Your task to perform on an android device: open chrome and create a bookmark for the current page Image 0: 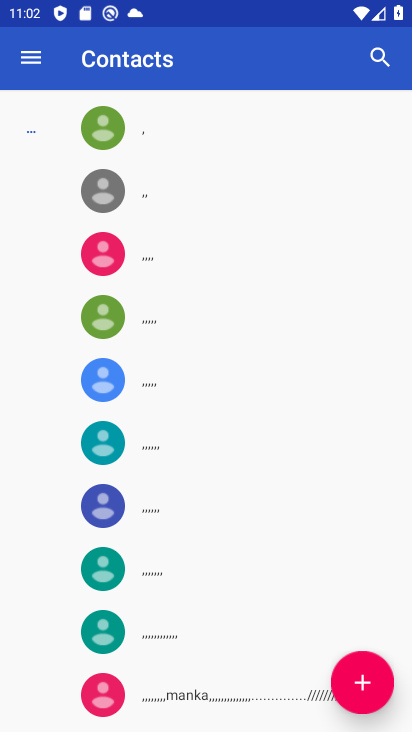
Step 0: click (173, 185)
Your task to perform on an android device: open chrome and create a bookmark for the current page Image 1: 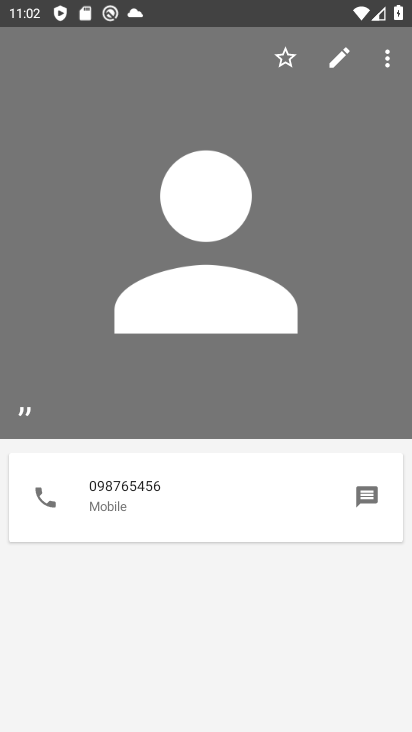
Step 1: press back button
Your task to perform on an android device: open chrome and create a bookmark for the current page Image 2: 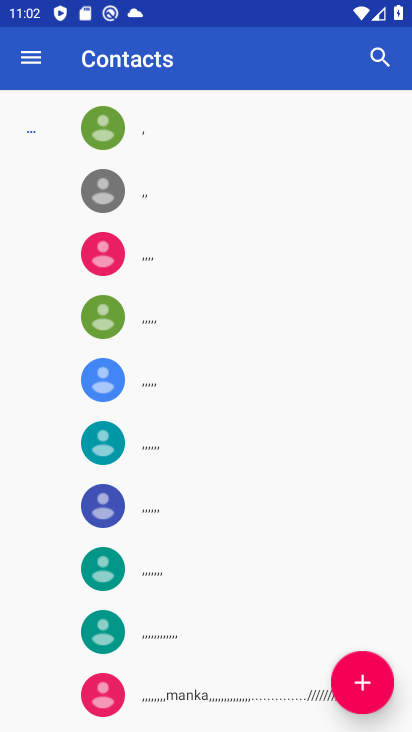
Step 2: press home button
Your task to perform on an android device: open chrome and create a bookmark for the current page Image 3: 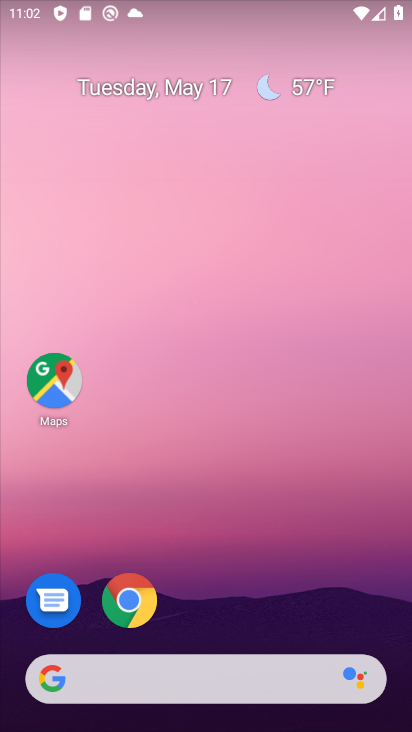
Step 3: press back button
Your task to perform on an android device: open chrome and create a bookmark for the current page Image 4: 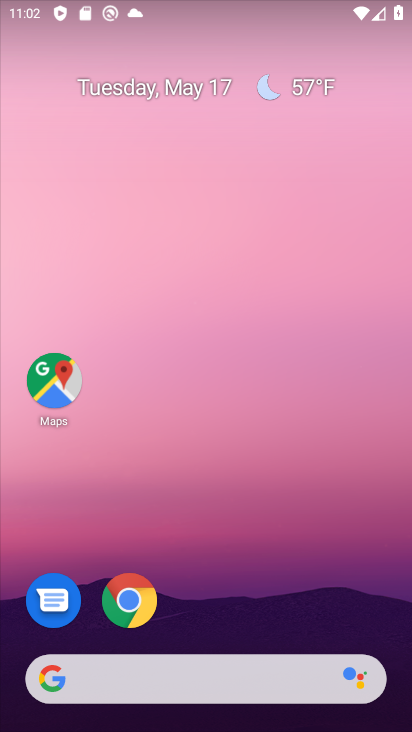
Step 4: drag from (268, 646) to (146, 46)
Your task to perform on an android device: open chrome and create a bookmark for the current page Image 5: 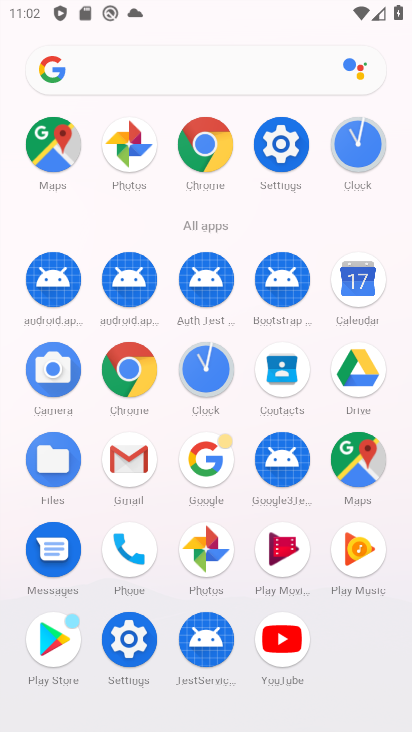
Step 5: click (207, 164)
Your task to perform on an android device: open chrome and create a bookmark for the current page Image 6: 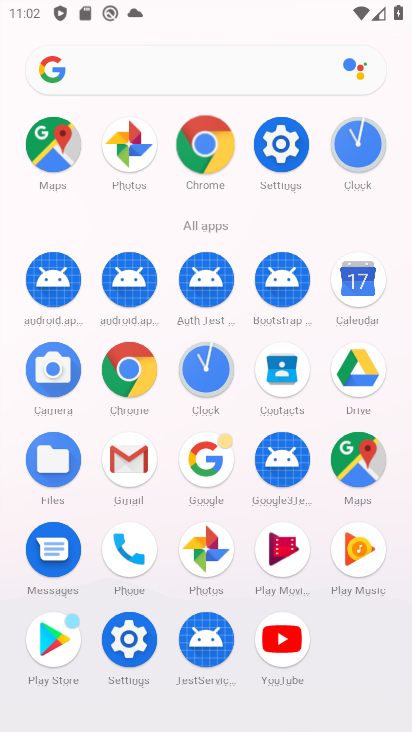
Step 6: click (207, 164)
Your task to perform on an android device: open chrome and create a bookmark for the current page Image 7: 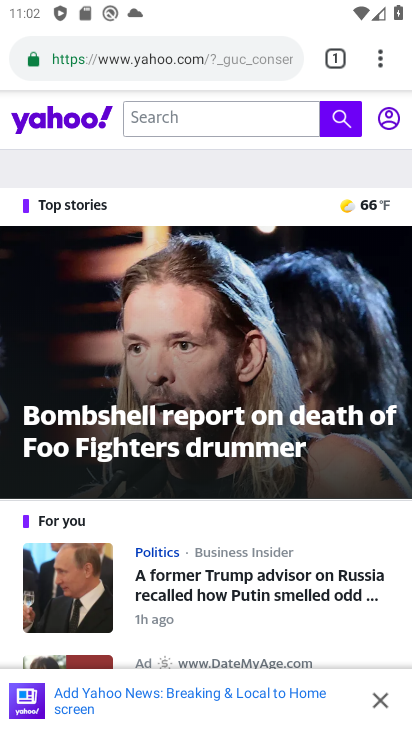
Step 7: click (378, 65)
Your task to perform on an android device: open chrome and create a bookmark for the current page Image 8: 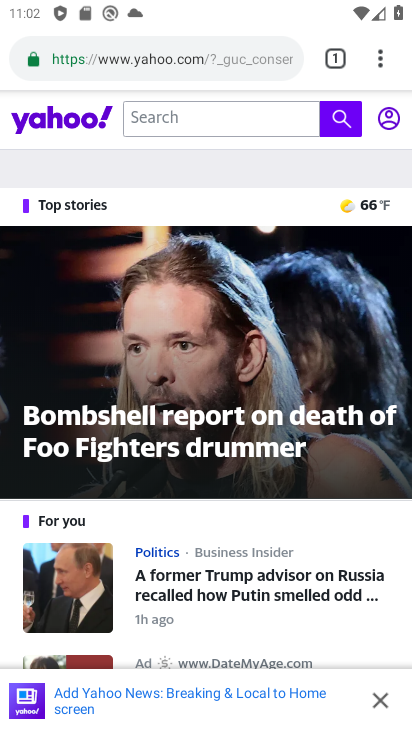
Step 8: drag from (376, 53) to (170, 118)
Your task to perform on an android device: open chrome and create a bookmark for the current page Image 9: 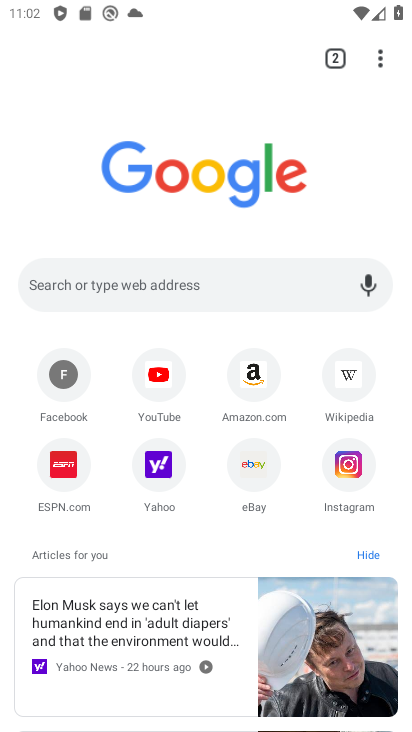
Step 9: click (63, 274)
Your task to perform on an android device: open chrome and create a bookmark for the current page Image 10: 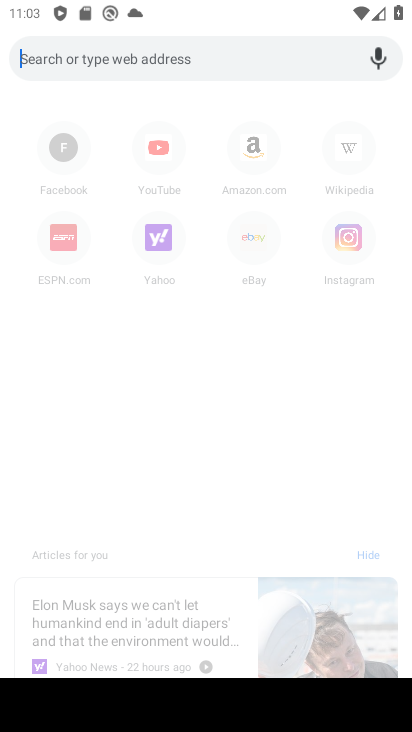
Step 10: type "www.snapdeal.com"
Your task to perform on an android device: open chrome and create a bookmark for the current page Image 11: 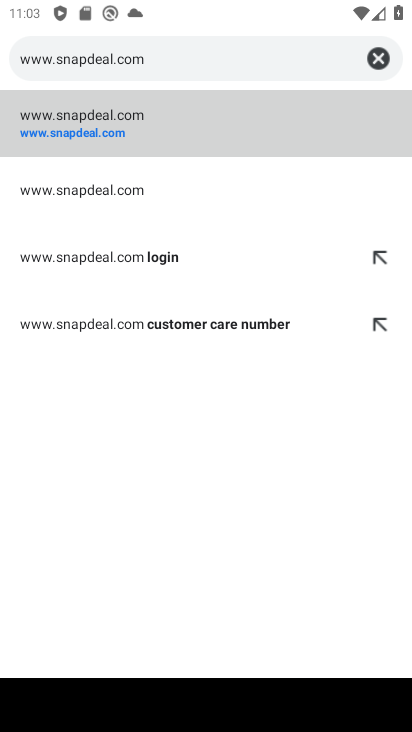
Step 11: click (98, 128)
Your task to perform on an android device: open chrome and create a bookmark for the current page Image 12: 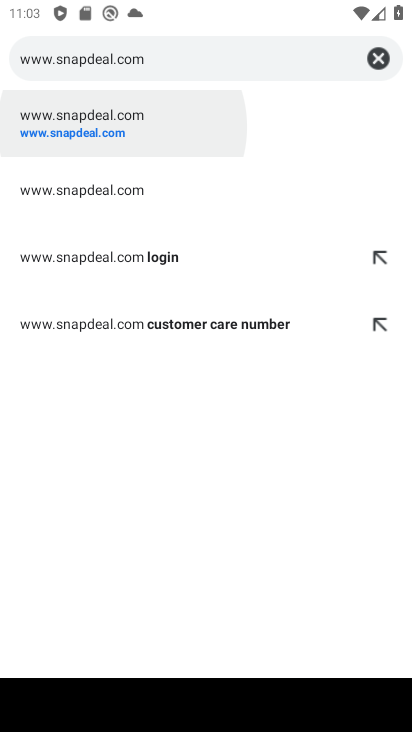
Step 12: click (97, 128)
Your task to perform on an android device: open chrome and create a bookmark for the current page Image 13: 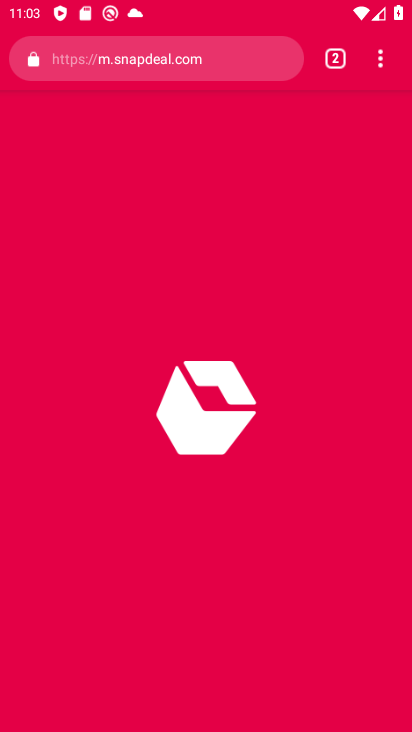
Step 13: drag from (379, 62) to (160, 220)
Your task to perform on an android device: open chrome and create a bookmark for the current page Image 14: 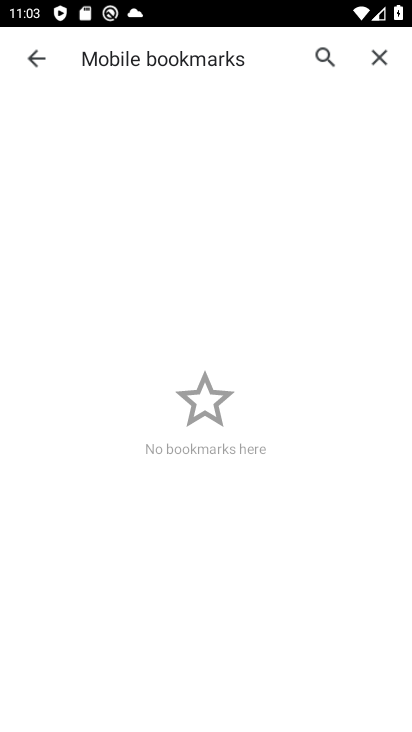
Step 14: click (158, 226)
Your task to perform on an android device: open chrome and create a bookmark for the current page Image 15: 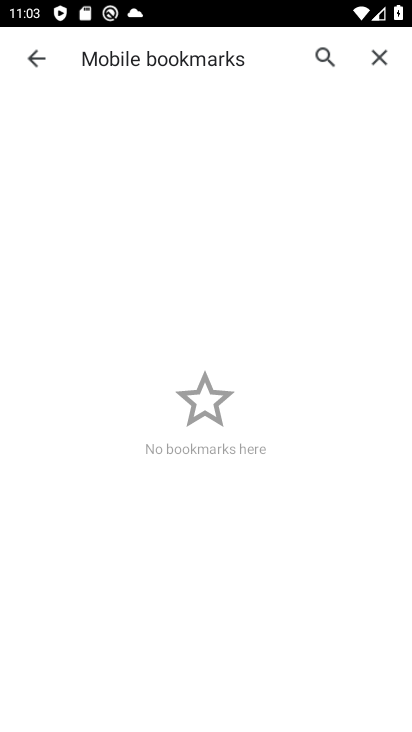
Step 15: click (30, 57)
Your task to perform on an android device: open chrome and create a bookmark for the current page Image 16: 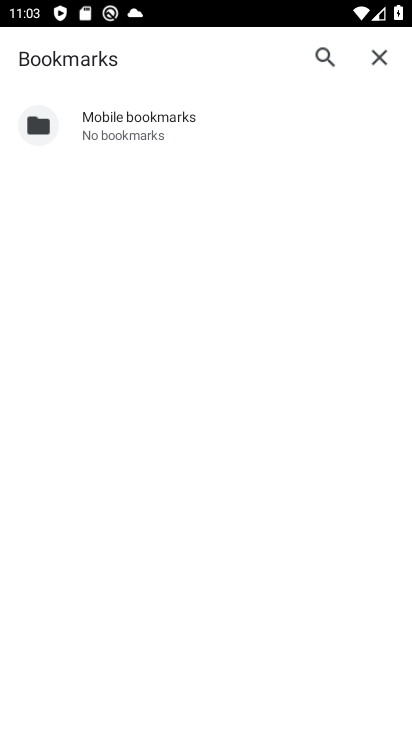
Step 16: press back button
Your task to perform on an android device: open chrome and create a bookmark for the current page Image 17: 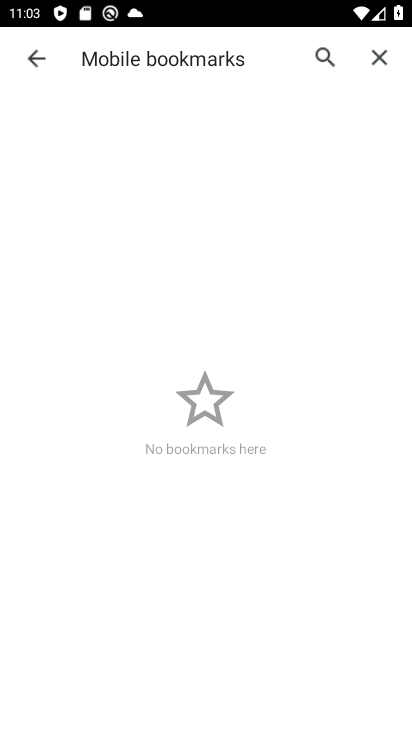
Step 17: click (38, 54)
Your task to perform on an android device: open chrome and create a bookmark for the current page Image 18: 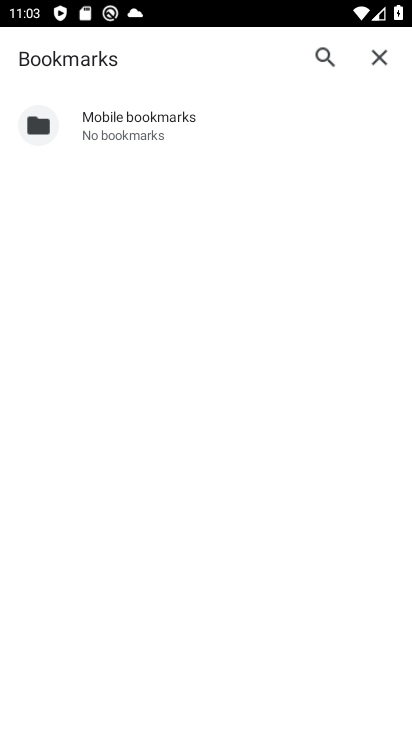
Step 18: click (380, 53)
Your task to perform on an android device: open chrome and create a bookmark for the current page Image 19: 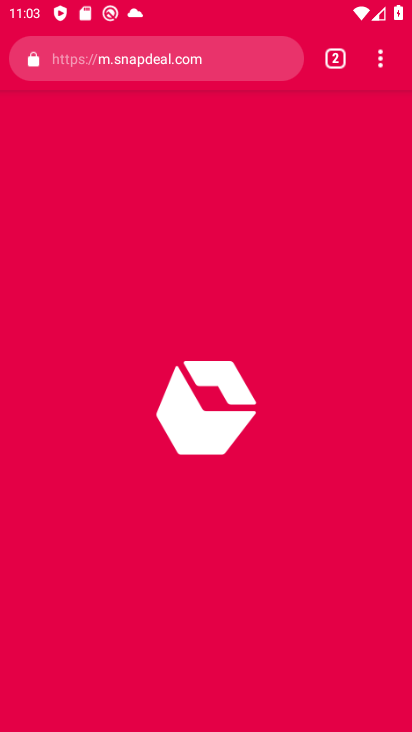
Step 19: click (199, 70)
Your task to perform on an android device: open chrome and create a bookmark for the current page Image 20: 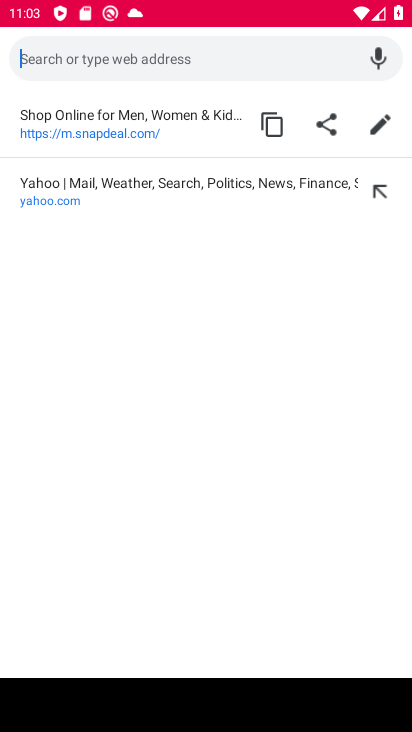
Step 20: task complete